Your task to perform on an android device: Open Google Chrome and open the bookmarks view Image 0: 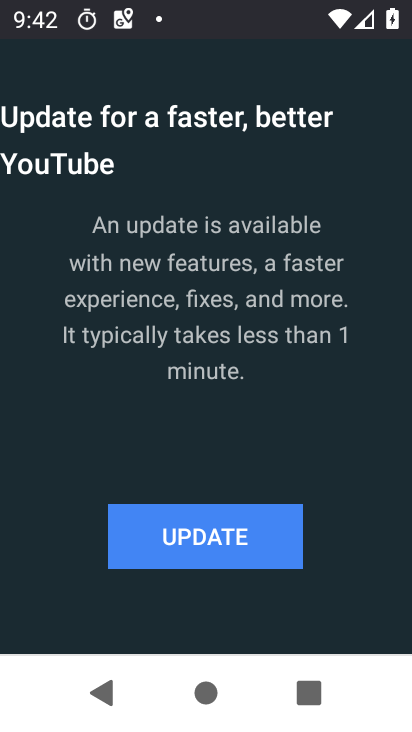
Step 0: press back button
Your task to perform on an android device: Open Google Chrome and open the bookmarks view Image 1: 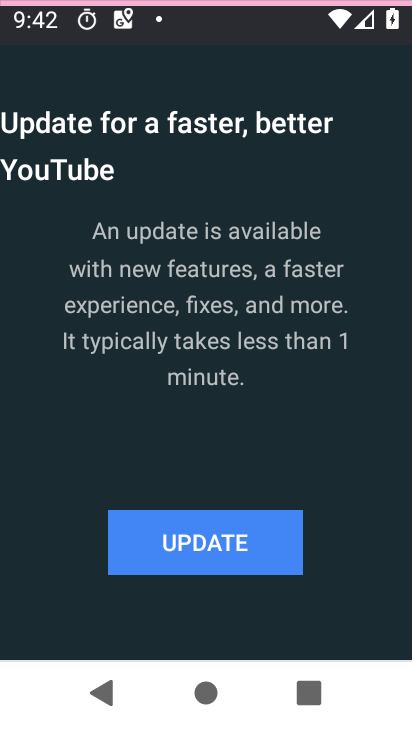
Step 1: press home button
Your task to perform on an android device: Open Google Chrome and open the bookmarks view Image 2: 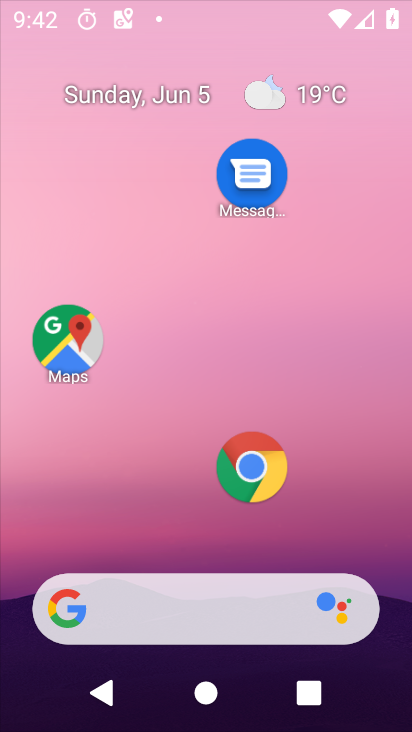
Step 2: drag from (226, 538) to (317, 95)
Your task to perform on an android device: Open Google Chrome and open the bookmarks view Image 3: 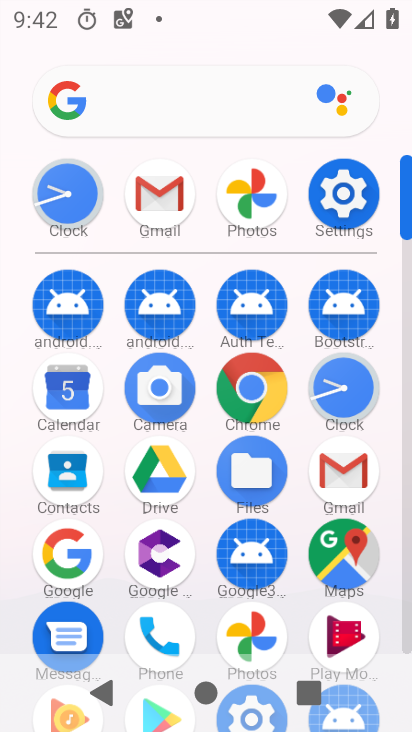
Step 3: click (246, 383)
Your task to perform on an android device: Open Google Chrome and open the bookmarks view Image 4: 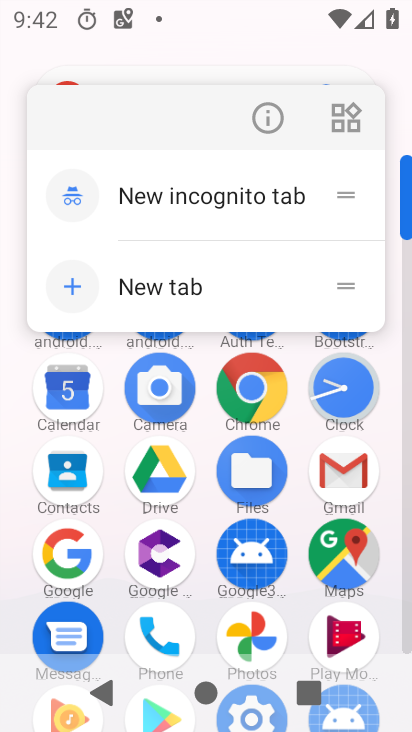
Step 4: click (264, 120)
Your task to perform on an android device: Open Google Chrome and open the bookmarks view Image 5: 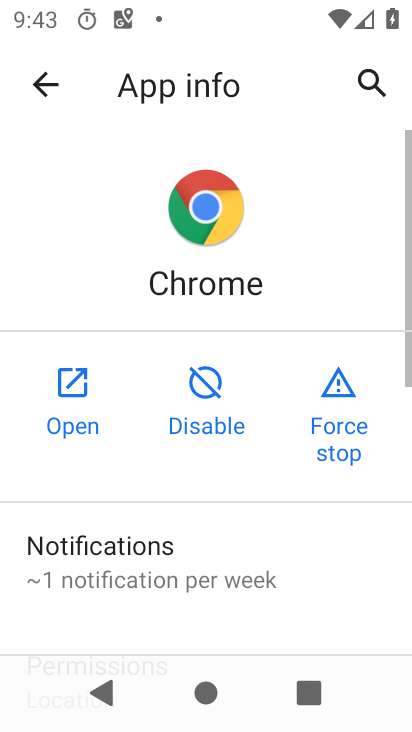
Step 5: click (99, 385)
Your task to perform on an android device: Open Google Chrome and open the bookmarks view Image 6: 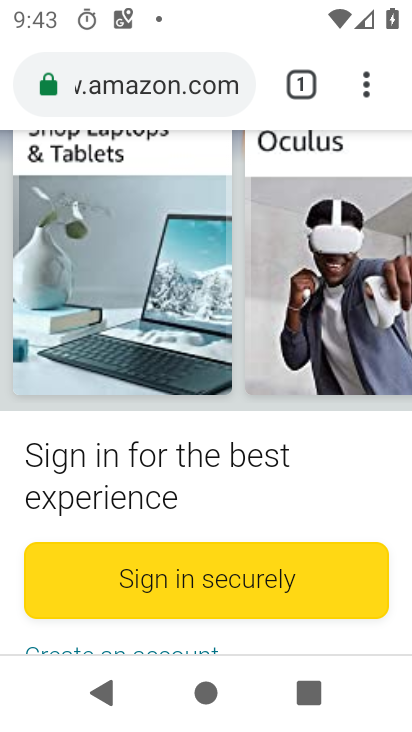
Step 6: drag from (200, 272) to (378, 714)
Your task to perform on an android device: Open Google Chrome and open the bookmarks view Image 7: 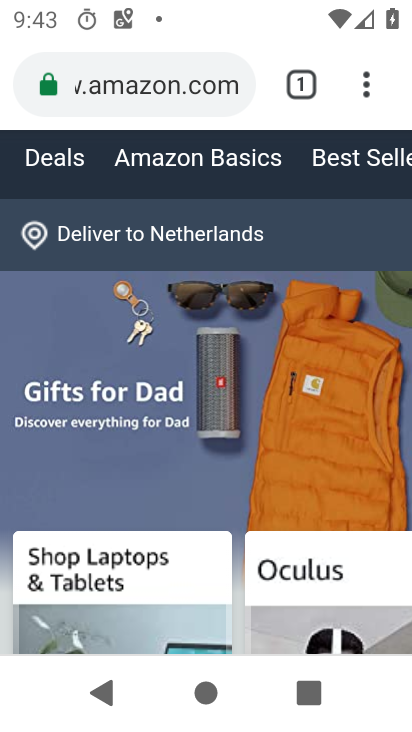
Step 7: click (361, 79)
Your task to perform on an android device: Open Google Chrome and open the bookmarks view Image 8: 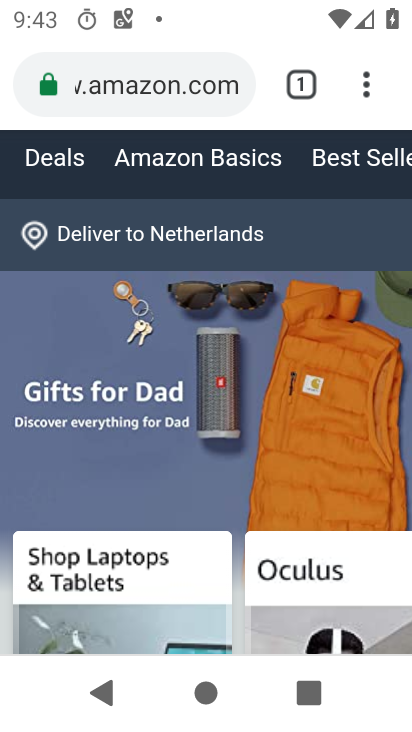
Step 8: click (366, 91)
Your task to perform on an android device: Open Google Chrome and open the bookmarks view Image 9: 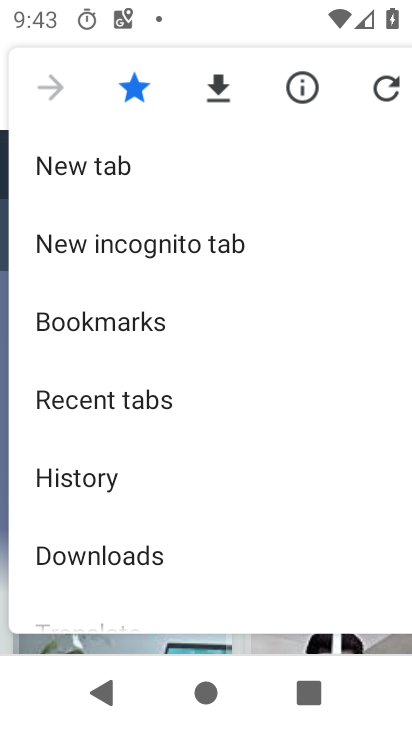
Step 9: click (141, 329)
Your task to perform on an android device: Open Google Chrome and open the bookmarks view Image 10: 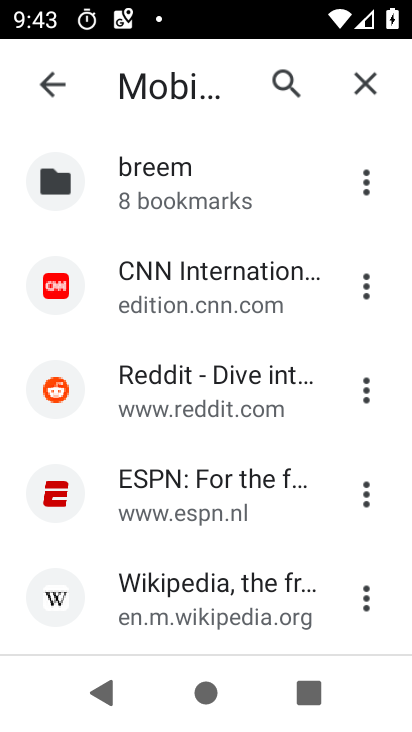
Step 10: task complete